Your task to perform on an android device: Search for Mexican restaurants on Maps Image 0: 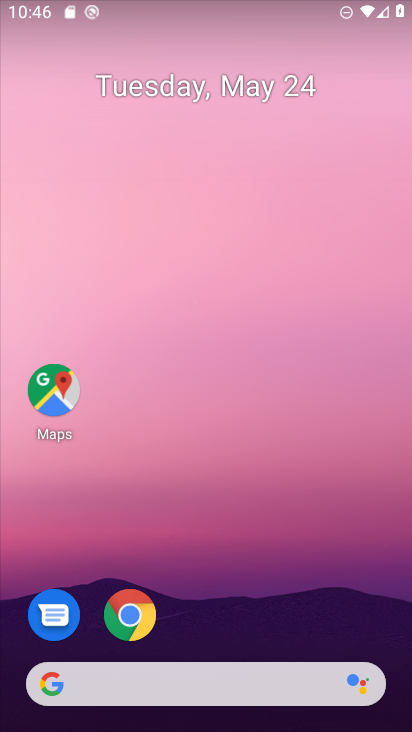
Step 0: drag from (265, 707) to (289, 51)
Your task to perform on an android device: Search for Mexican restaurants on Maps Image 1: 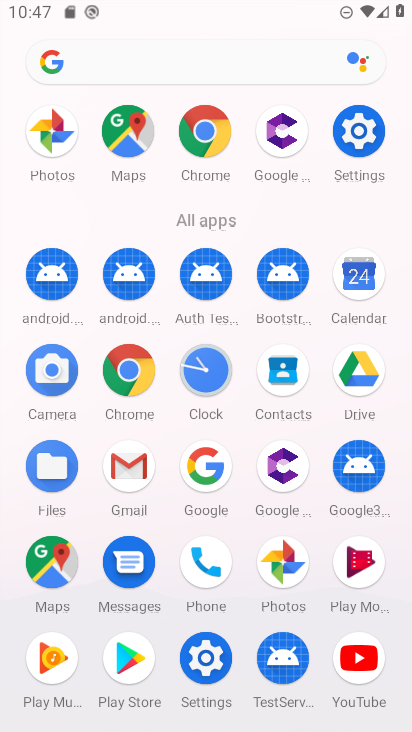
Step 1: click (133, 130)
Your task to perform on an android device: Search for Mexican restaurants on Maps Image 2: 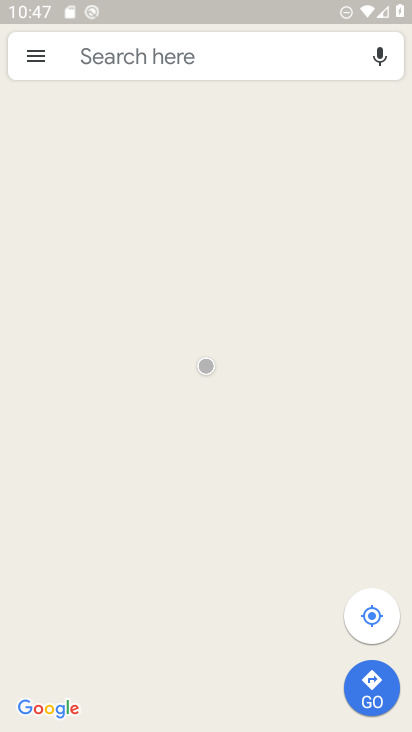
Step 2: click (117, 61)
Your task to perform on an android device: Search for Mexican restaurants on Maps Image 3: 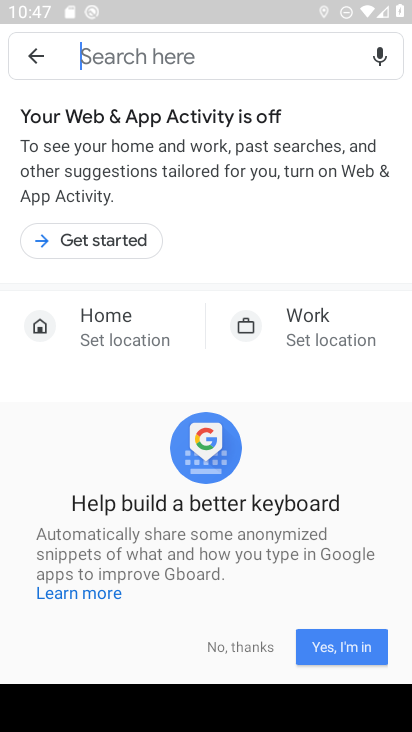
Step 3: click (111, 229)
Your task to perform on an android device: Search for Mexican restaurants on Maps Image 4: 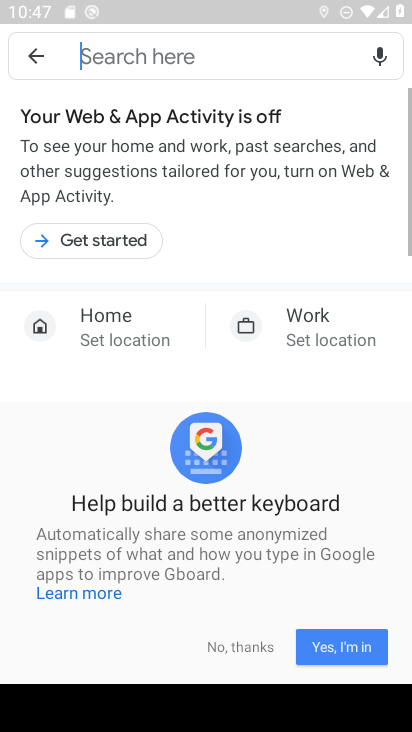
Step 4: click (217, 637)
Your task to perform on an android device: Search for Mexican restaurants on Maps Image 5: 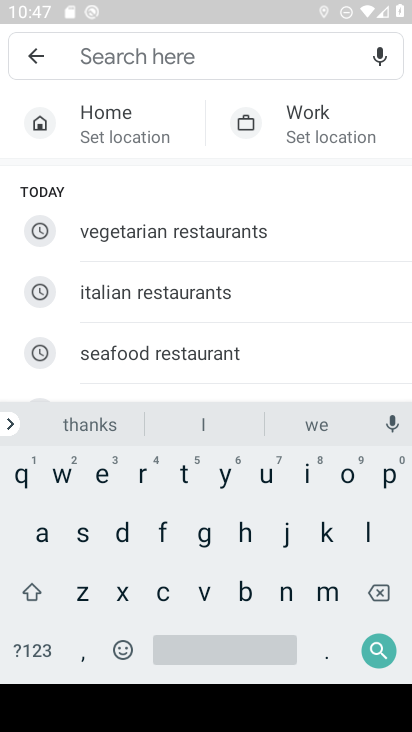
Step 5: click (321, 602)
Your task to perform on an android device: Search for Mexican restaurants on Maps Image 6: 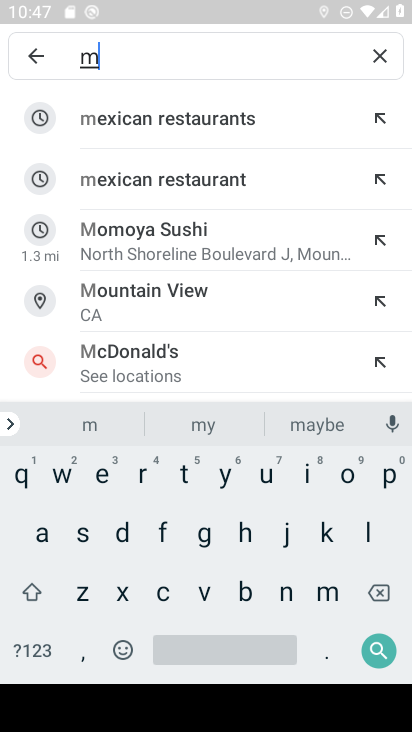
Step 6: click (218, 134)
Your task to perform on an android device: Search for Mexican restaurants on Maps Image 7: 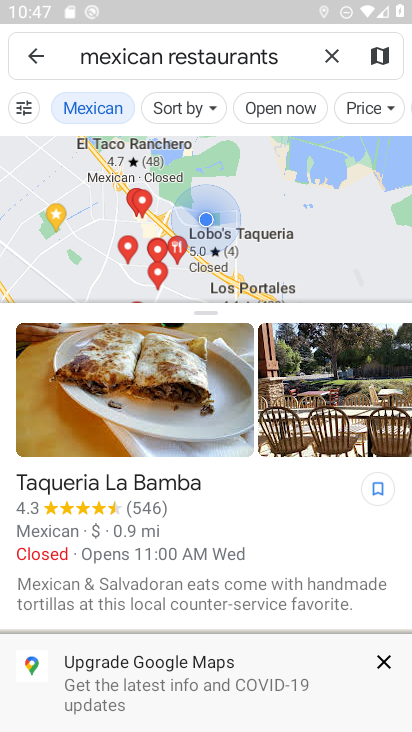
Step 7: click (92, 217)
Your task to perform on an android device: Search for Mexican restaurants on Maps Image 8: 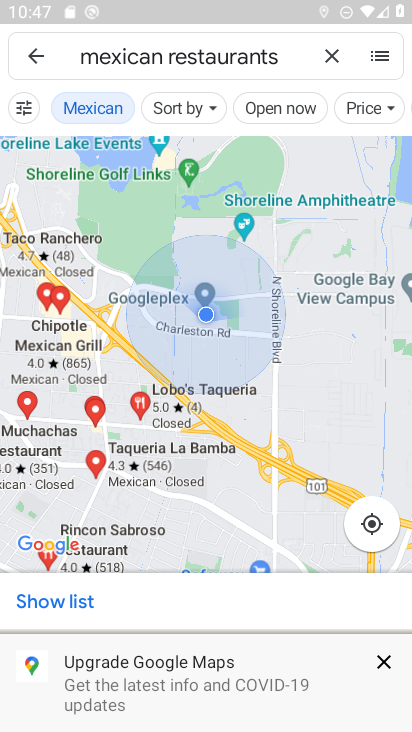
Step 8: task complete